Your task to perform on an android device: Open maps Image 0: 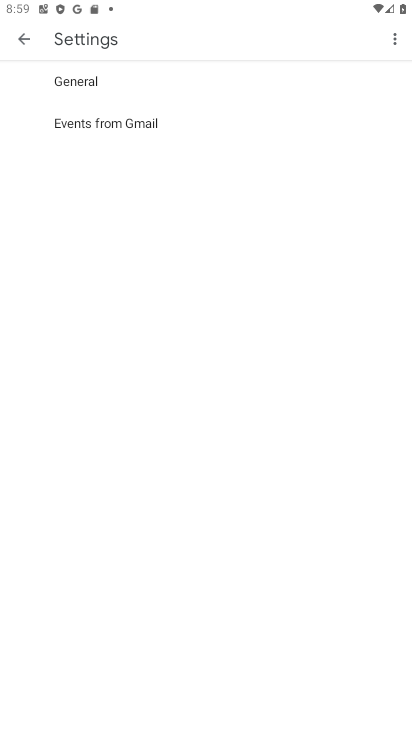
Step 0: press home button
Your task to perform on an android device: Open maps Image 1: 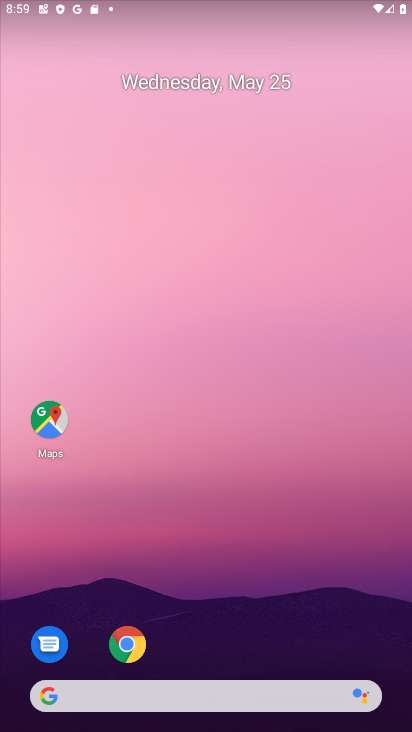
Step 1: click (46, 413)
Your task to perform on an android device: Open maps Image 2: 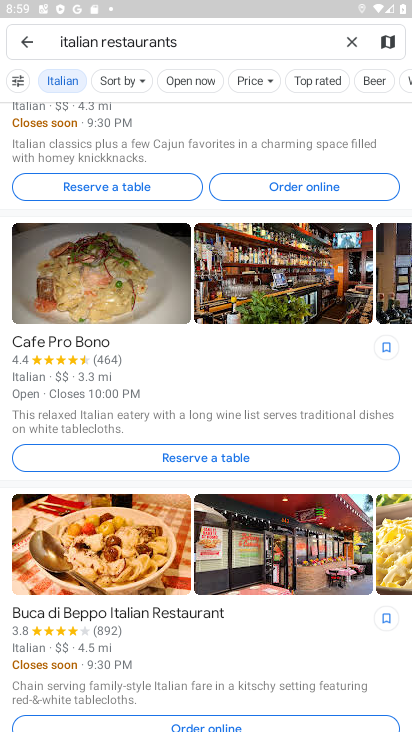
Step 2: click (21, 40)
Your task to perform on an android device: Open maps Image 3: 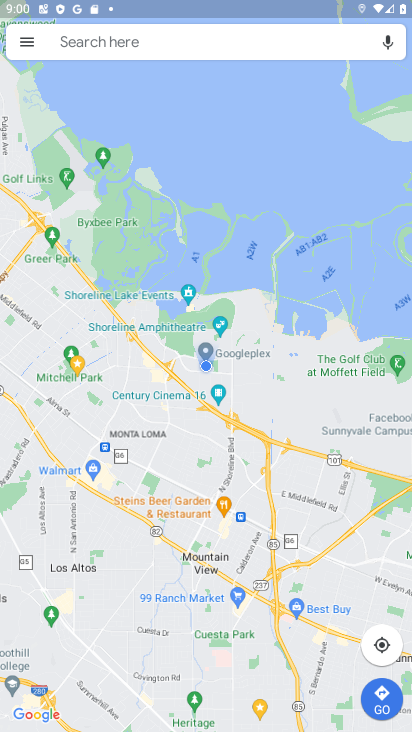
Step 3: task complete